Your task to perform on an android device: Add "duracell triple a" to the cart on bestbuy, then select checkout. Image 0: 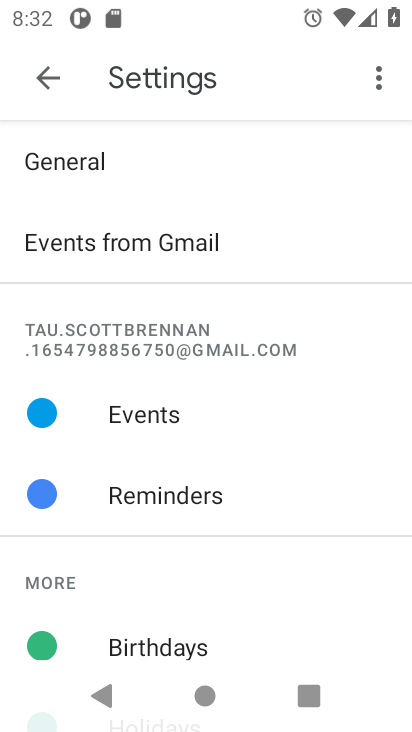
Step 0: press home button
Your task to perform on an android device: Add "duracell triple a" to the cart on bestbuy, then select checkout. Image 1: 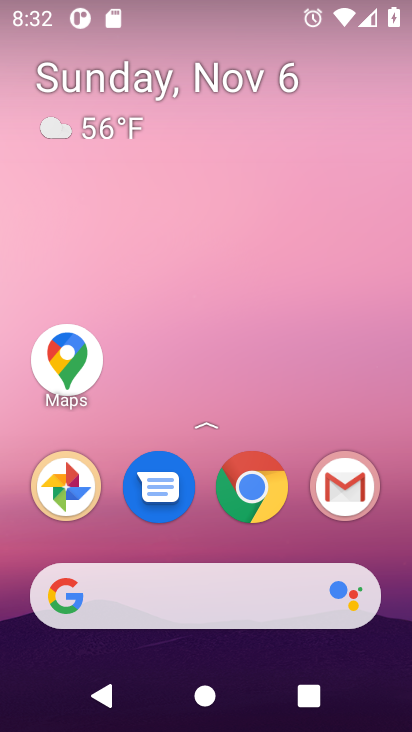
Step 1: click (257, 459)
Your task to perform on an android device: Add "duracell triple a" to the cart on bestbuy, then select checkout. Image 2: 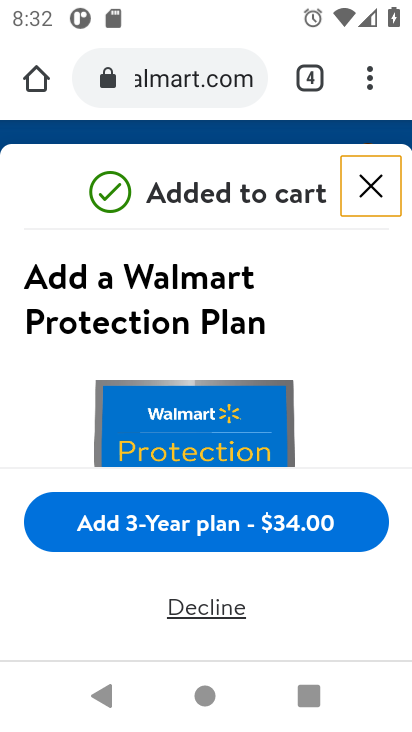
Step 2: click (175, 85)
Your task to perform on an android device: Add "duracell triple a" to the cart on bestbuy, then select checkout. Image 3: 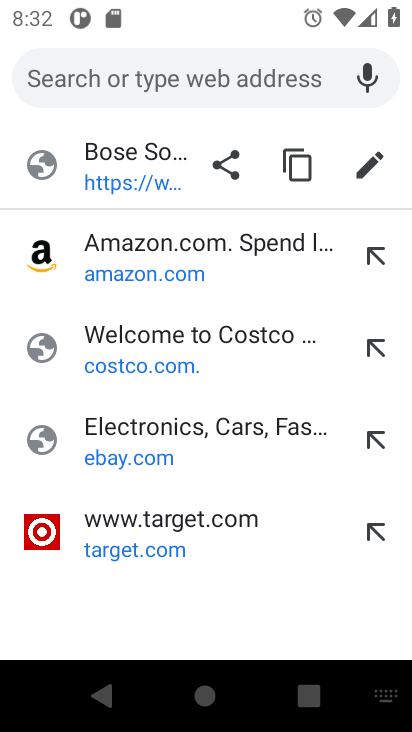
Step 3: type "bestbuy"
Your task to perform on an android device: Add "duracell triple a" to the cart on bestbuy, then select checkout. Image 4: 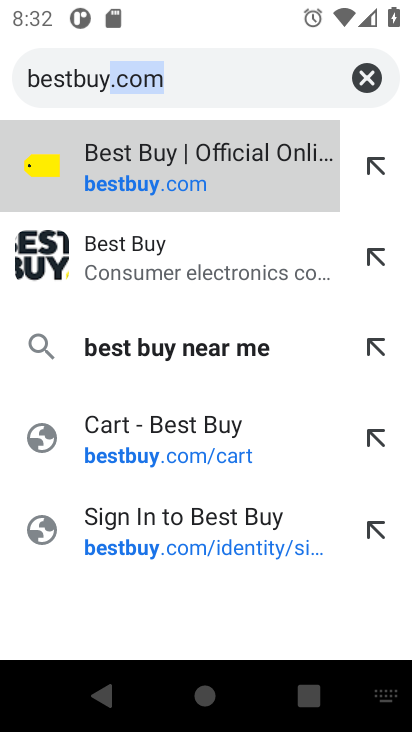
Step 4: click (222, 158)
Your task to perform on an android device: Add "duracell triple a" to the cart on bestbuy, then select checkout. Image 5: 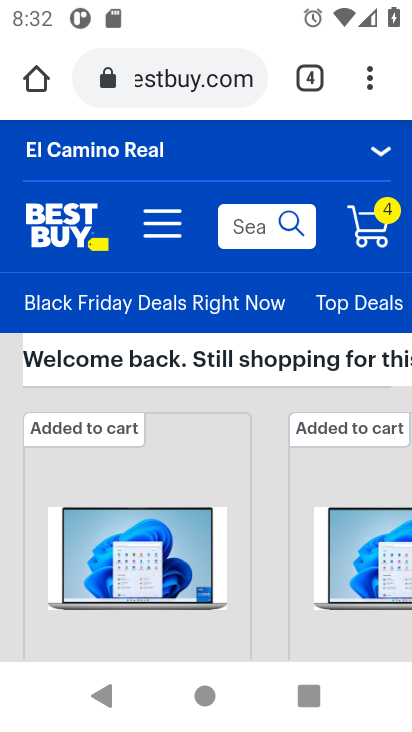
Step 5: drag from (130, 643) to (210, 119)
Your task to perform on an android device: Add "duracell triple a" to the cart on bestbuy, then select checkout. Image 6: 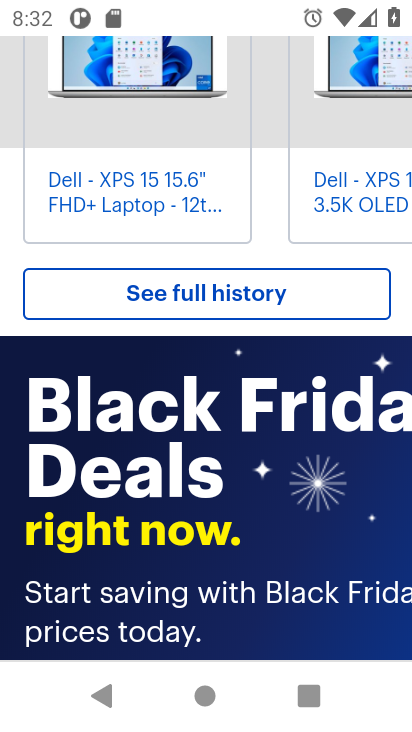
Step 6: drag from (255, 114) to (228, 603)
Your task to perform on an android device: Add "duracell triple a" to the cart on bestbuy, then select checkout. Image 7: 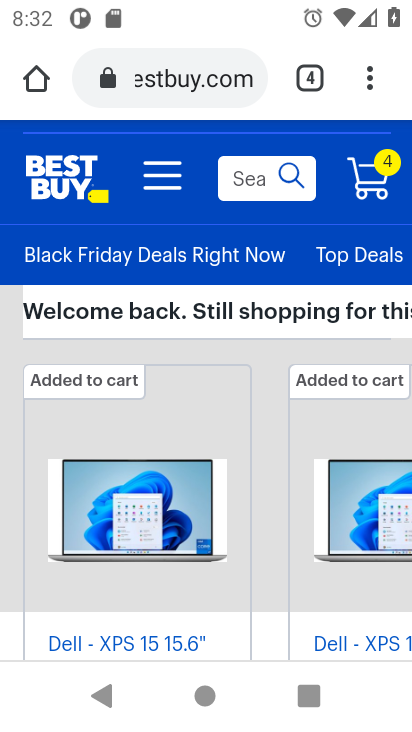
Step 7: click (245, 173)
Your task to perform on an android device: Add "duracell triple a" to the cart on bestbuy, then select checkout. Image 8: 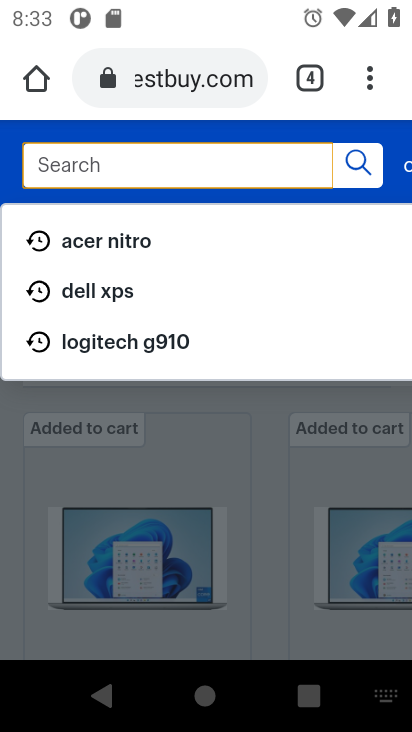
Step 8: type "duracell triple a"
Your task to perform on an android device: Add "duracell triple a" to the cart on bestbuy, then select checkout. Image 9: 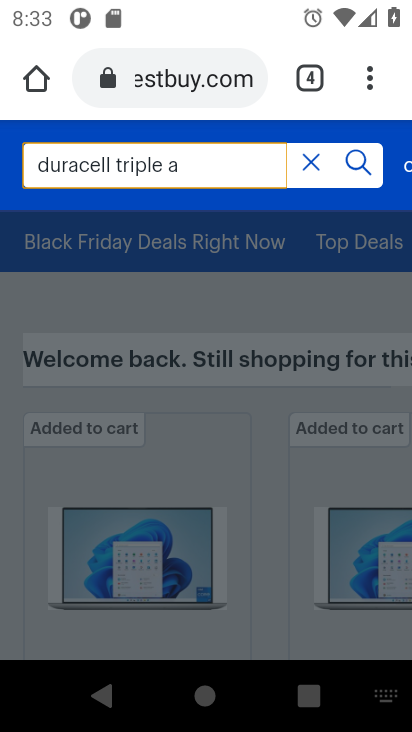
Step 9: click (363, 175)
Your task to perform on an android device: Add "duracell triple a" to the cart on bestbuy, then select checkout. Image 10: 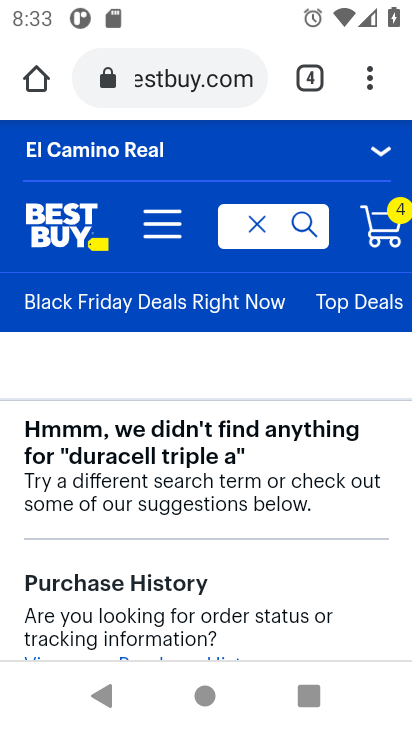
Step 10: click (302, 230)
Your task to perform on an android device: Add "duracell triple a" to the cart on bestbuy, then select checkout. Image 11: 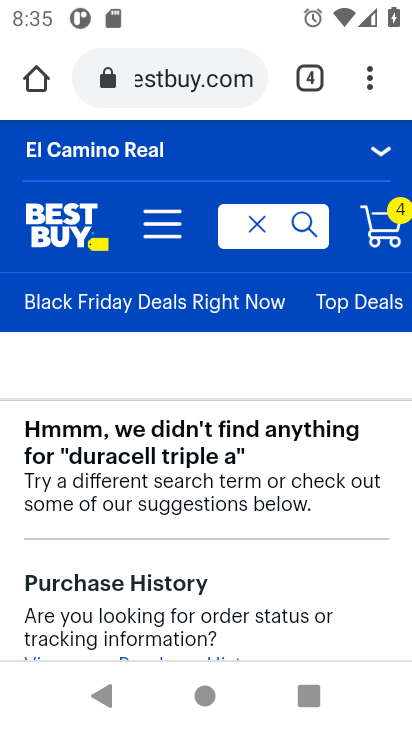
Step 11: task complete